Your task to perform on an android device: toggle priority inbox in the gmail app Image 0: 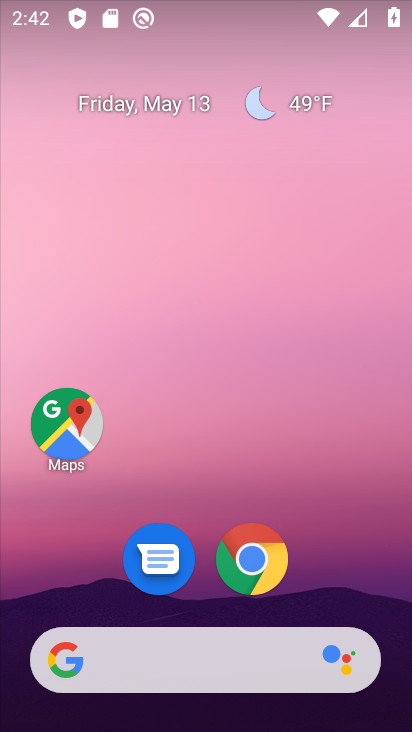
Step 0: drag from (394, 632) to (319, 0)
Your task to perform on an android device: toggle priority inbox in the gmail app Image 1: 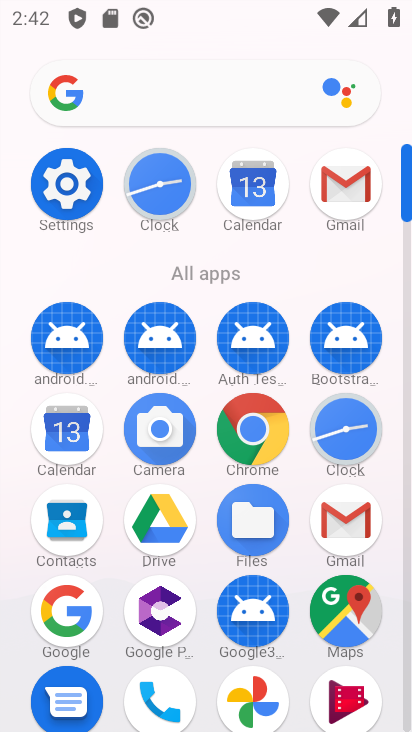
Step 1: click (408, 706)
Your task to perform on an android device: toggle priority inbox in the gmail app Image 2: 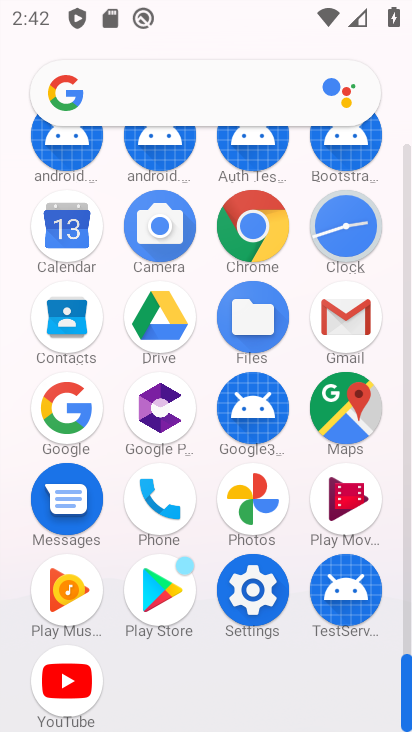
Step 2: click (352, 309)
Your task to perform on an android device: toggle priority inbox in the gmail app Image 3: 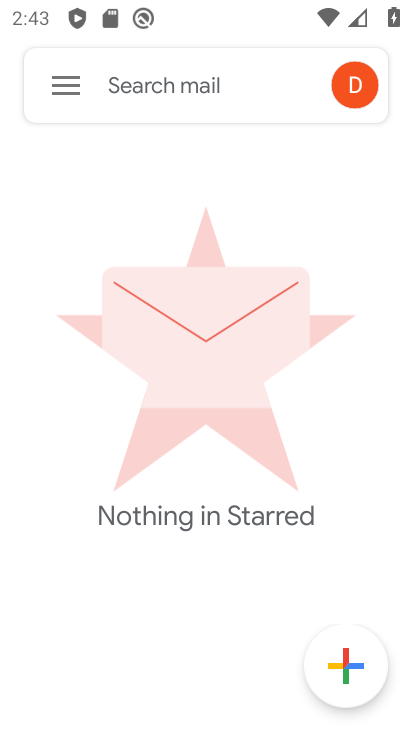
Step 3: click (63, 86)
Your task to perform on an android device: toggle priority inbox in the gmail app Image 4: 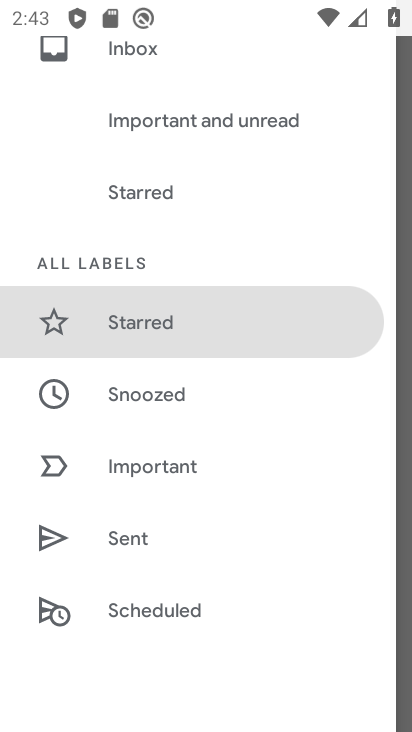
Step 4: drag from (241, 573) to (244, 7)
Your task to perform on an android device: toggle priority inbox in the gmail app Image 5: 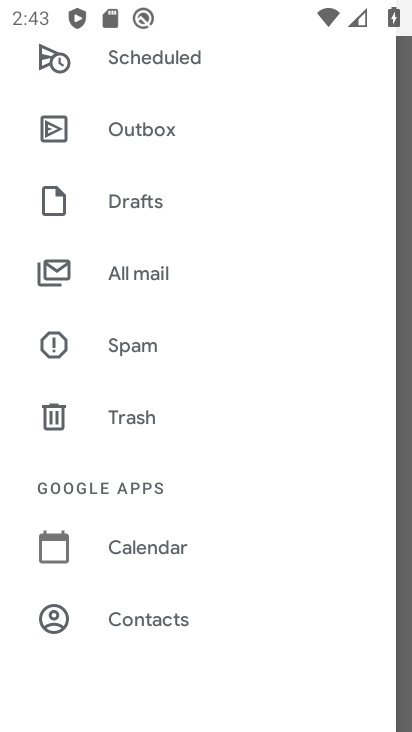
Step 5: drag from (199, 590) to (227, 171)
Your task to perform on an android device: toggle priority inbox in the gmail app Image 6: 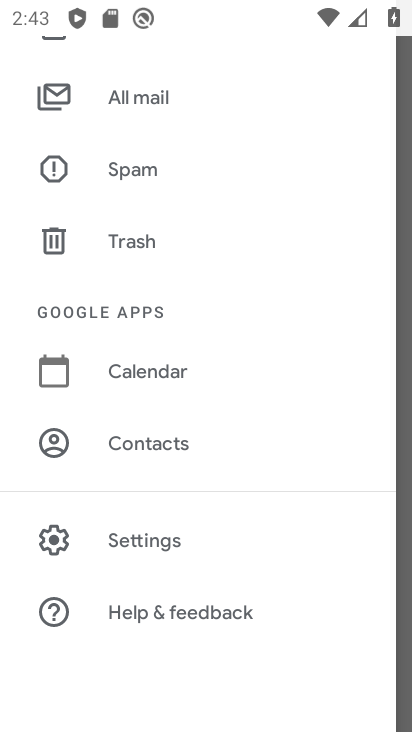
Step 6: click (128, 532)
Your task to perform on an android device: toggle priority inbox in the gmail app Image 7: 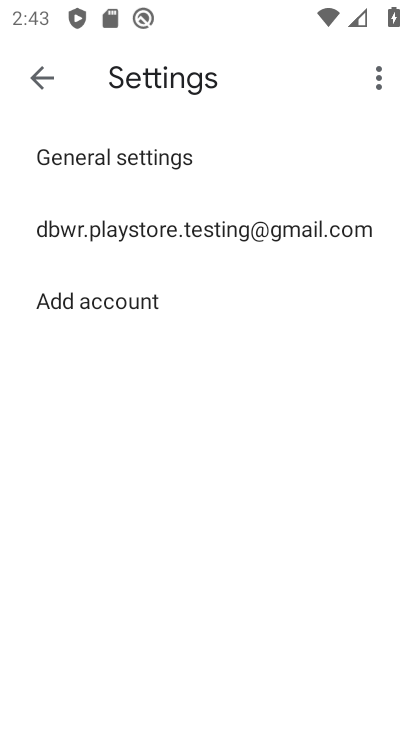
Step 7: click (122, 226)
Your task to perform on an android device: toggle priority inbox in the gmail app Image 8: 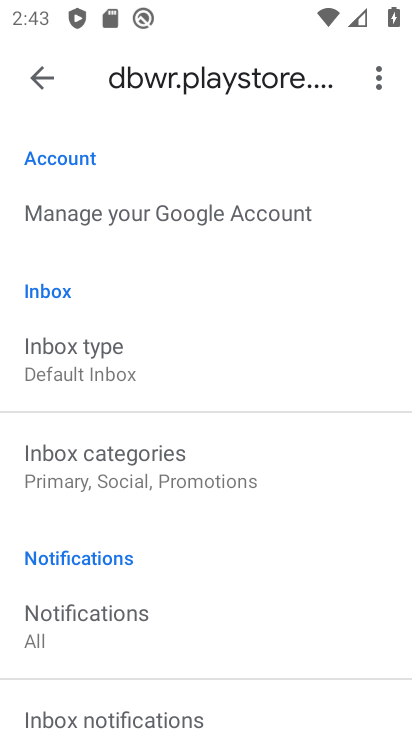
Step 8: click (81, 360)
Your task to perform on an android device: toggle priority inbox in the gmail app Image 9: 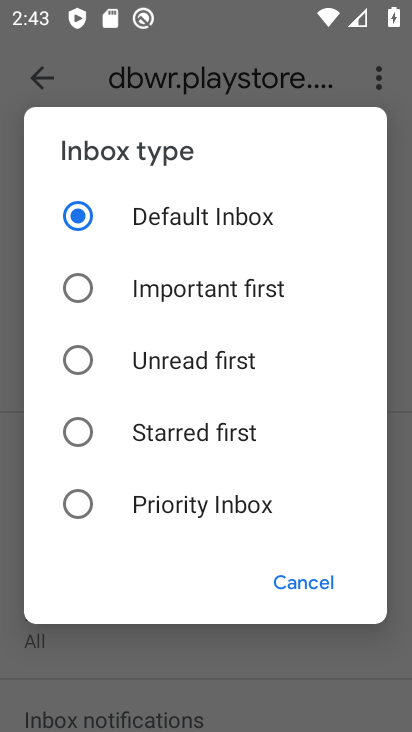
Step 9: click (81, 512)
Your task to perform on an android device: toggle priority inbox in the gmail app Image 10: 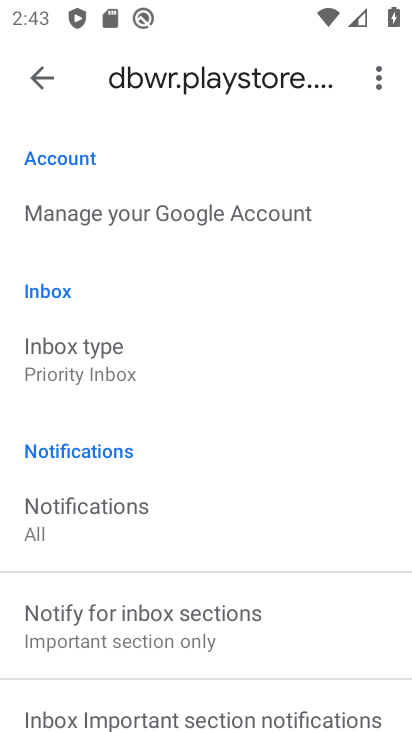
Step 10: task complete